Your task to perform on an android device: delete browsing data in the chrome app Image 0: 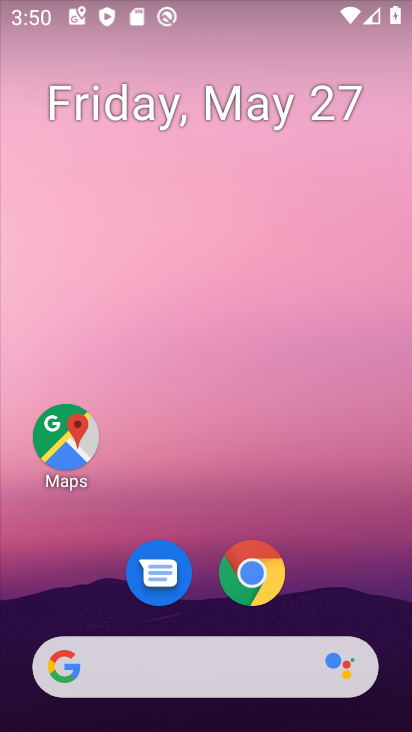
Step 0: drag from (381, 602) to (383, 301)
Your task to perform on an android device: delete browsing data in the chrome app Image 1: 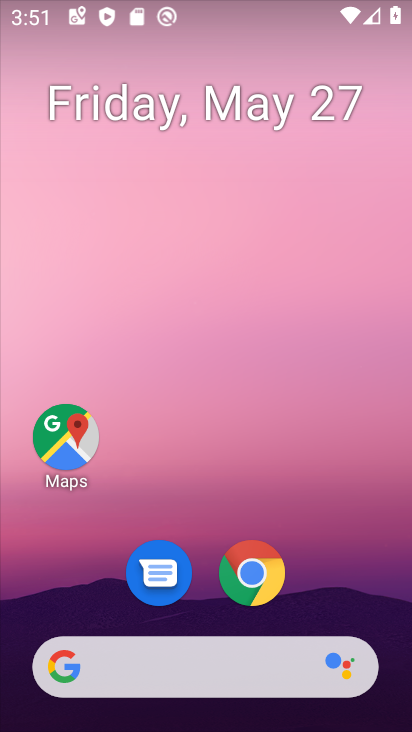
Step 1: drag from (367, 575) to (396, 248)
Your task to perform on an android device: delete browsing data in the chrome app Image 2: 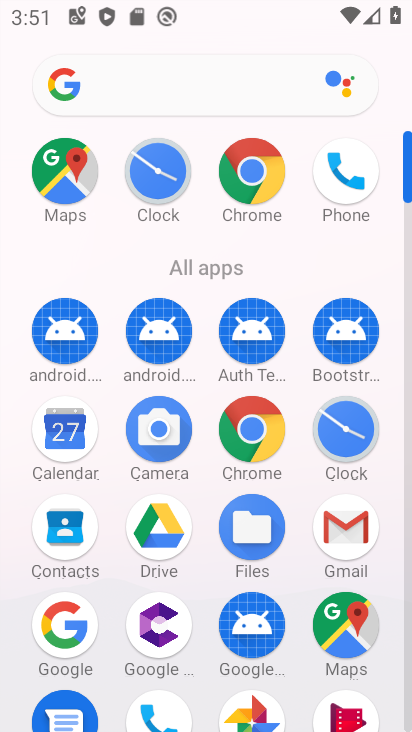
Step 2: click (264, 186)
Your task to perform on an android device: delete browsing data in the chrome app Image 3: 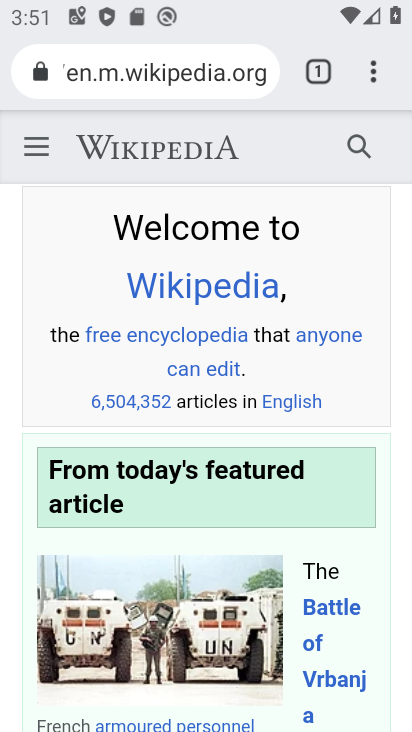
Step 3: click (370, 78)
Your task to perform on an android device: delete browsing data in the chrome app Image 4: 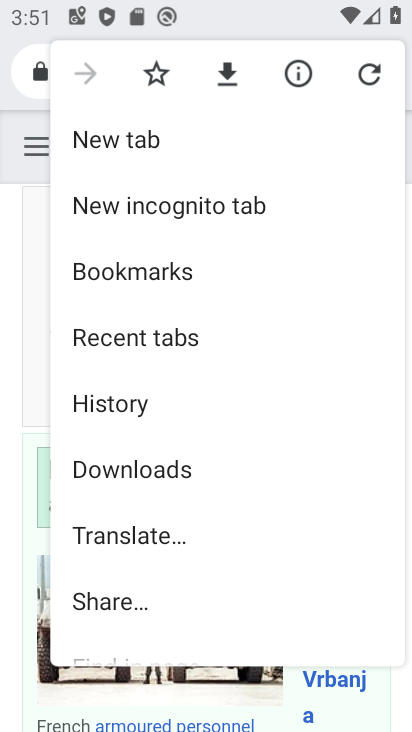
Step 4: drag from (335, 483) to (334, 391)
Your task to perform on an android device: delete browsing data in the chrome app Image 5: 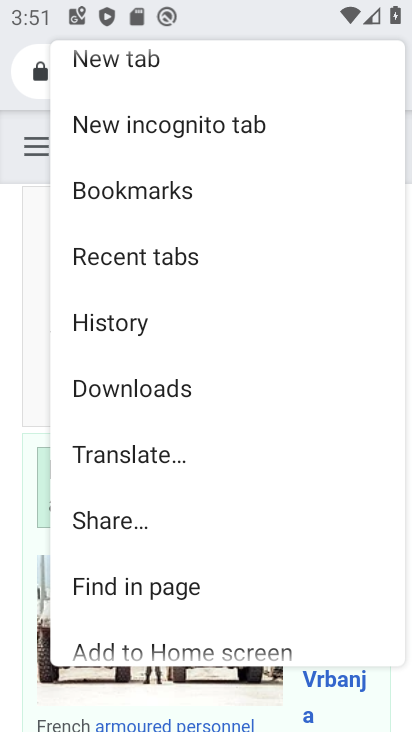
Step 5: drag from (330, 568) to (336, 406)
Your task to perform on an android device: delete browsing data in the chrome app Image 6: 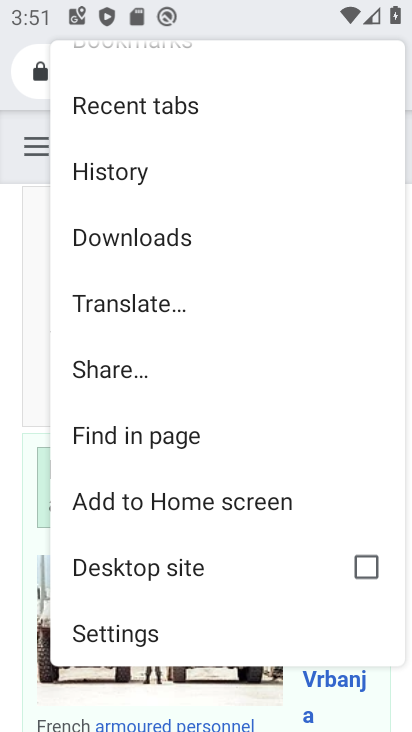
Step 6: click (156, 639)
Your task to perform on an android device: delete browsing data in the chrome app Image 7: 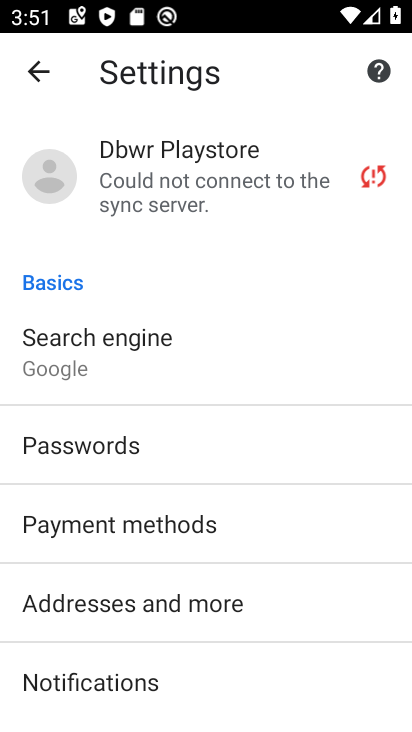
Step 7: drag from (345, 610) to (355, 483)
Your task to perform on an android device: delete browsing data in the chrome app Image 8: 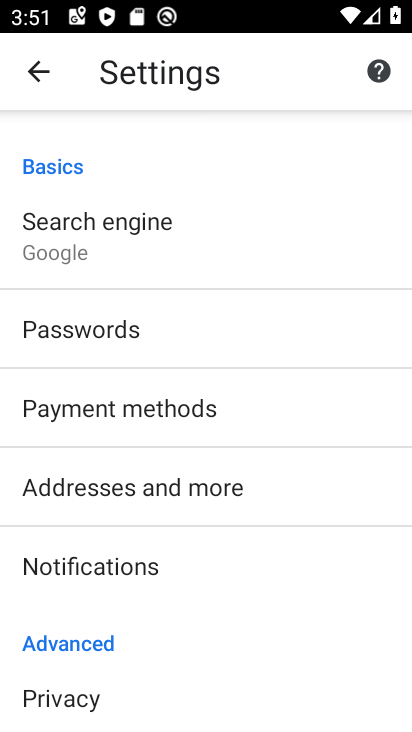
Step 8: drag from (359, 618) to (360, 498)
Your task to perform on an android device: delete browsing data in the chrome app Image 9: 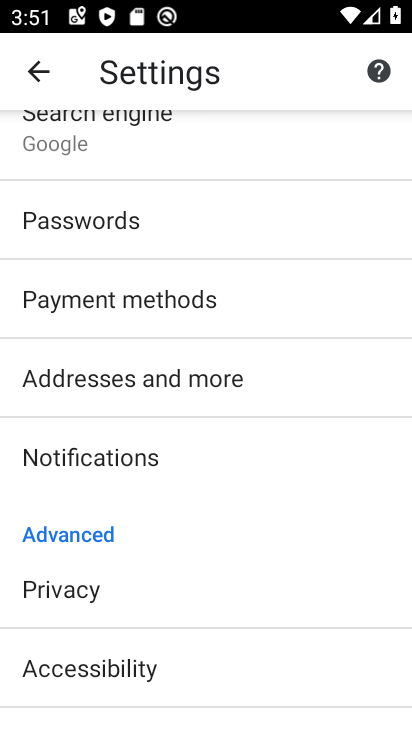
Step 9: drag from (349, 657) to (351, 565)
Your task to perform on an android device: delete browsing data in the chrome app Image 10: 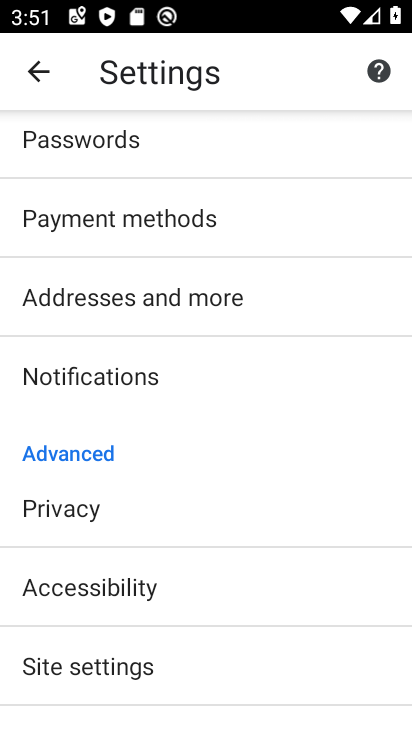
Step 10: drag from (345, 642) to (349, 534)
Your task to perform on an android device: delete browsing data in the chrome app Image 11: 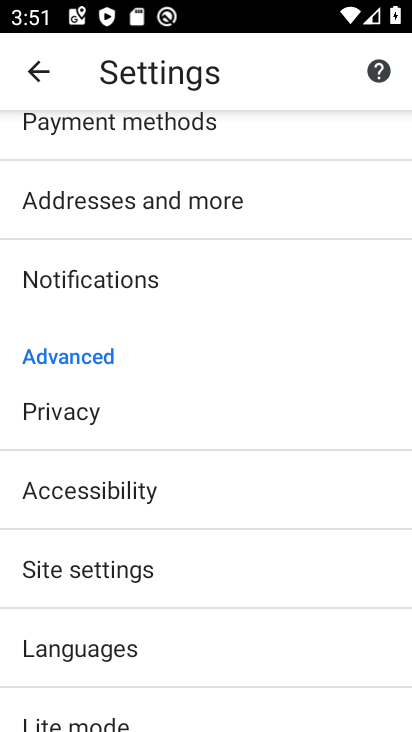
Step 11: click (141, 438)
Your task to perform on an android device: delete browsing data in the chrome app Image 12: 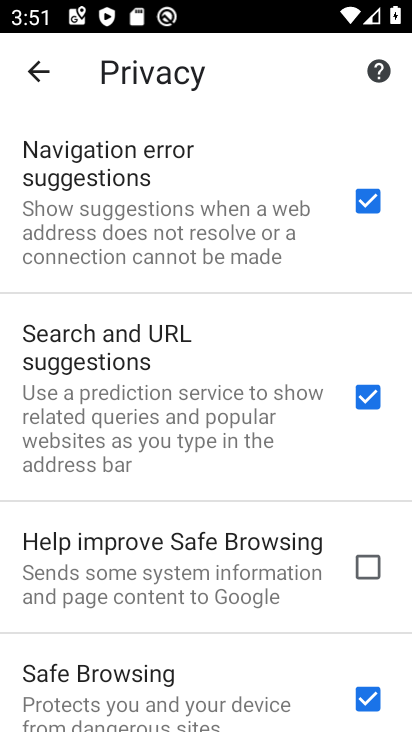
Step 12: drag from (288, 462) to (295, 403)
Your task to perform on an android device: delete browsing data in the chrome app Image 13: 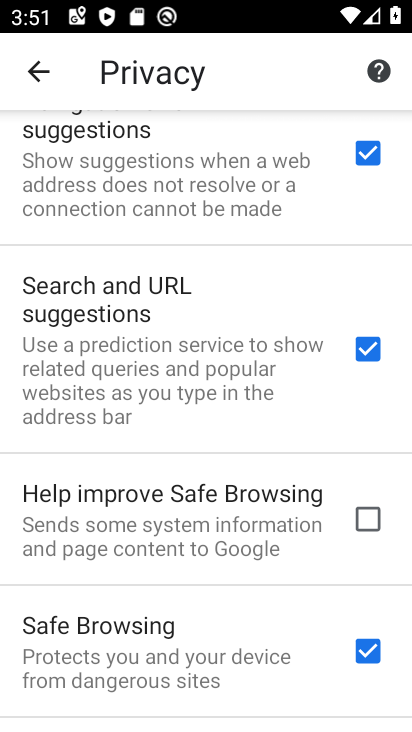
Step 13: drag from (309, 506) to (311, 429)
Your task to perform on an android device: delete browsing data in the chrome app Image 14: 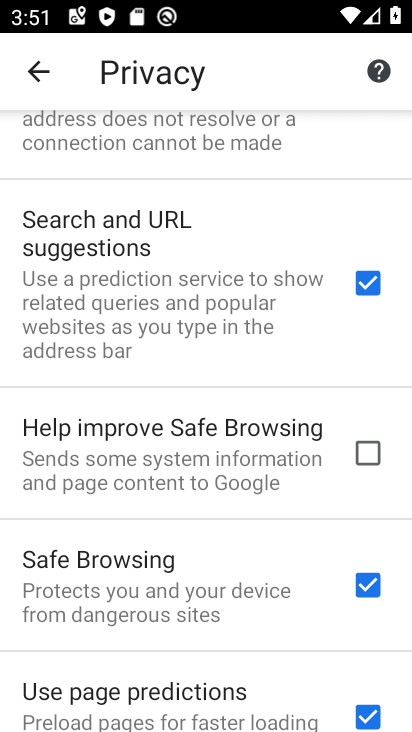
Step 14: drag from (305, 519) to (303, 436)
Your task to perform on an android device: delete browsing data in the chrome app Image 15: 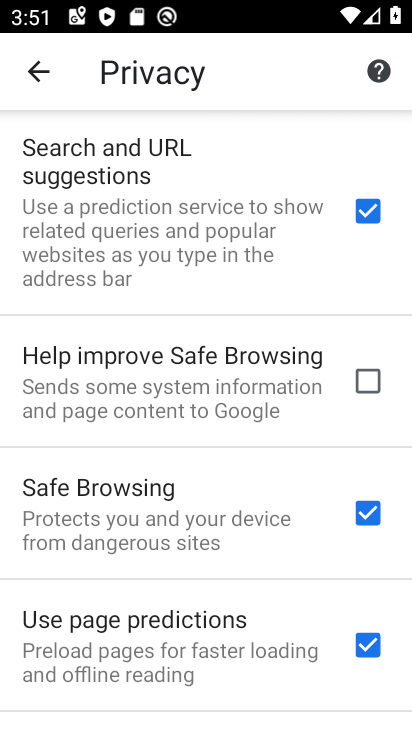
Step 15: drag from (299, 530) to (298, 453)
Your task to perform on an android device: delete browsing data in the chrome app Image 16: 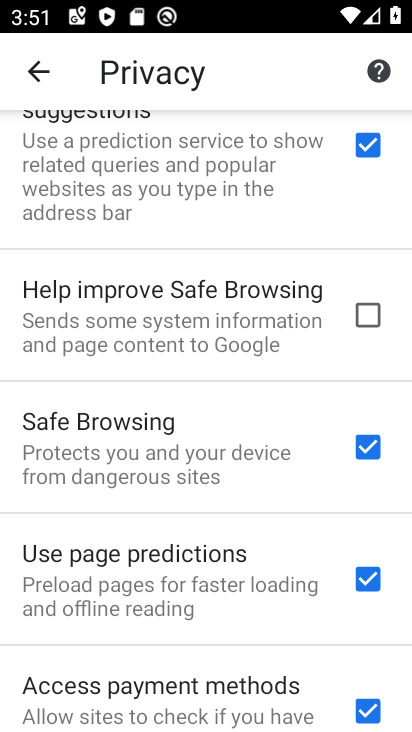
Step 16: drag from (292, 509) to (286, 430)
Your task to perform on an android device: delete browsing data in the chrome app Image 17: 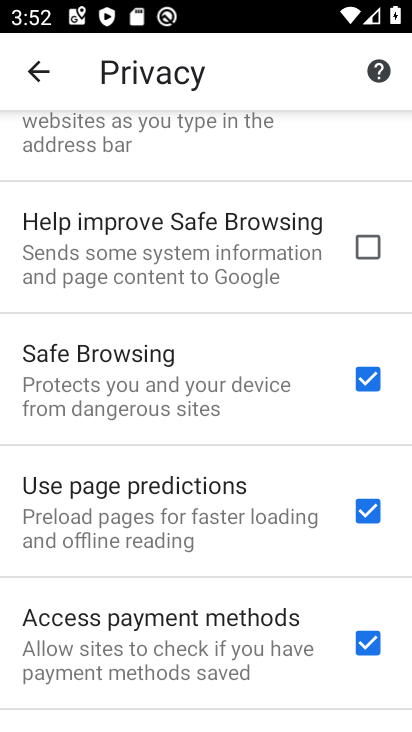
Step 17: drag from (294, 538) to (292, 441)
Your task to perform on an android device: delete browsing data in the chrome app Image 18: 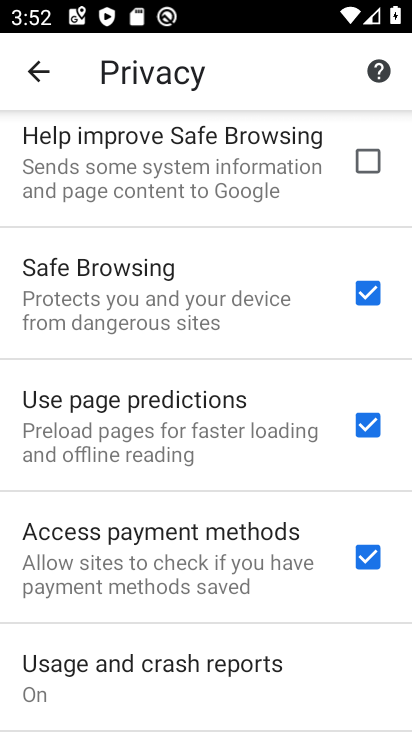
Step 18: drag from (290, 525) to (290, 425)
Your task to perform on an android device: delete browsing data in the chrome app Image 19: 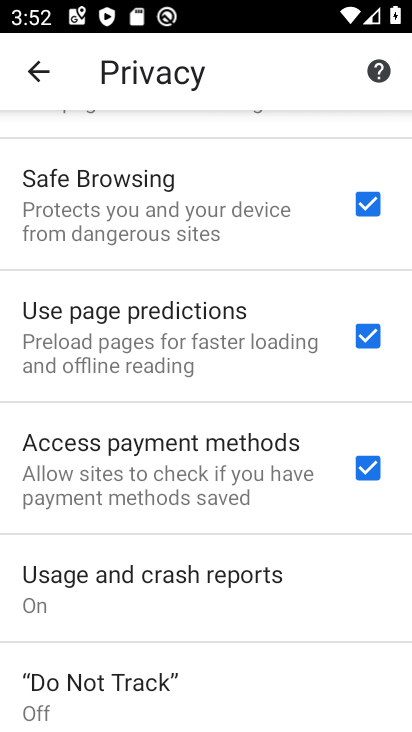
Step 19: drag from (300, 542) to (296, 464)
Your task to perform on an android device: delete browsing data in the chrome app Image 20: 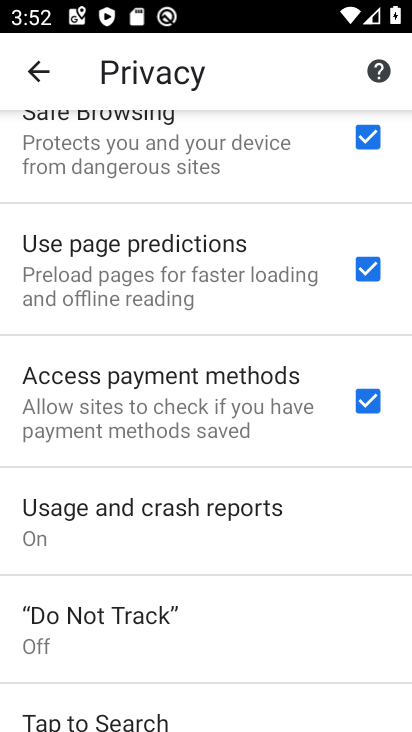
Step 20: drag from (312, 554) to (311, 474)
Your task to perform on an android device: delete browsing data in the chrome app Image 21: 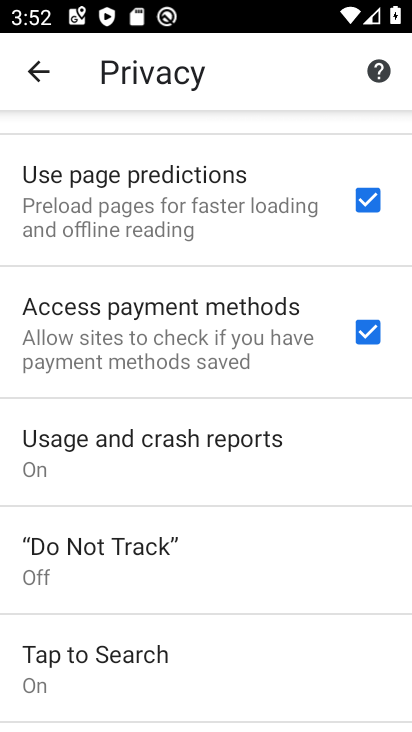
Step 21: drag from (300, 560) to (305, 460)
Your task to perform on an android device: delete browsing data in the chrome app Image 22: 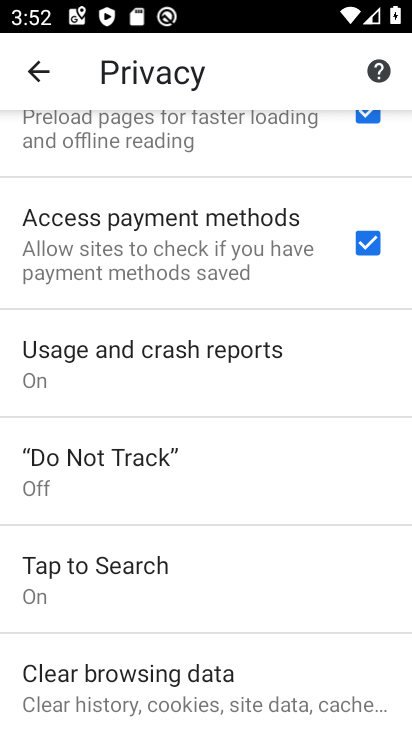
Step 22: drag from (307, 556) to (308, 471)
Your task to perform on an android device: delete browsing data in the chrome app Image 23: 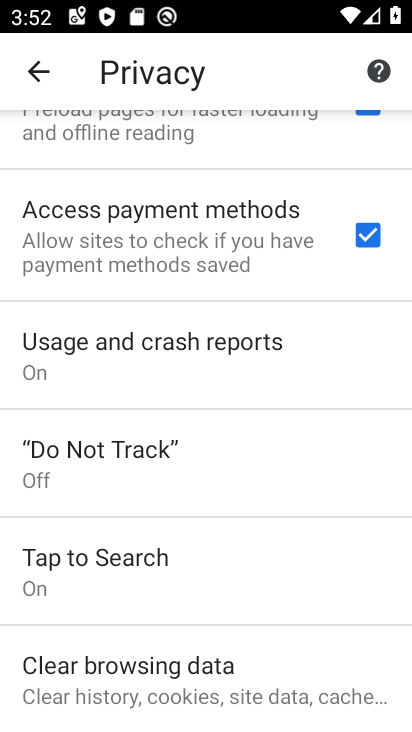
Step 23: click (275, 660)
Your task to perform on an android device: delete browsing data in the chrome app Image 24: 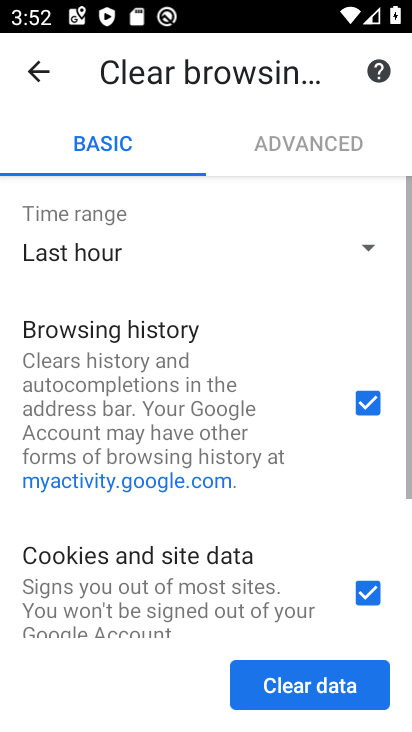
Step 24: click (330, 675)
Your task to perform on an android device: delete browsing data in the chrome app Image 25: 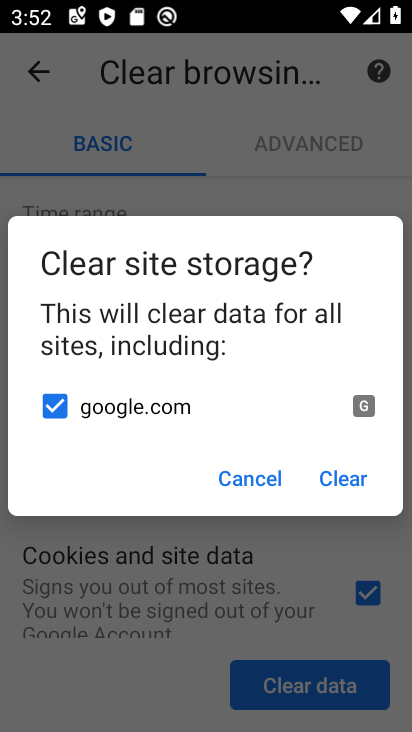
Step 25: click (379, 464)
Your task to perform on an android device: delete browsing data in the chrome app Image 26: 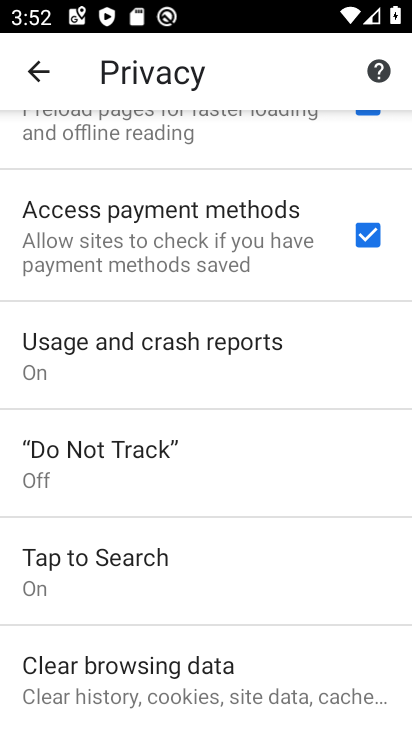
Step 26: task complete